Your task to perform on an android device: open device folders in google photos Image 0: 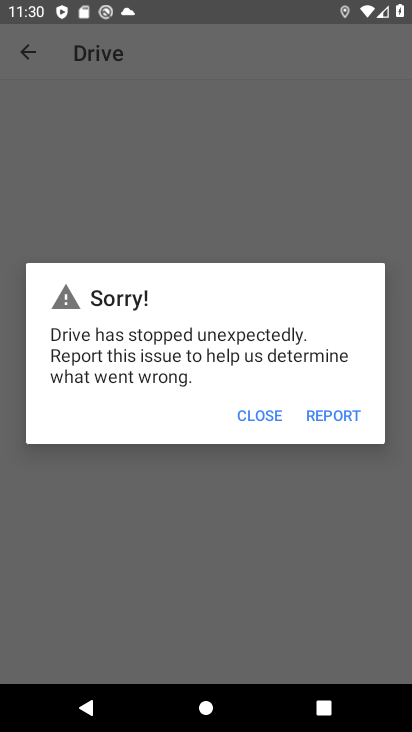
Step 0: press home button
Your task to perform on an android device: open device folders in google photos Image 1: 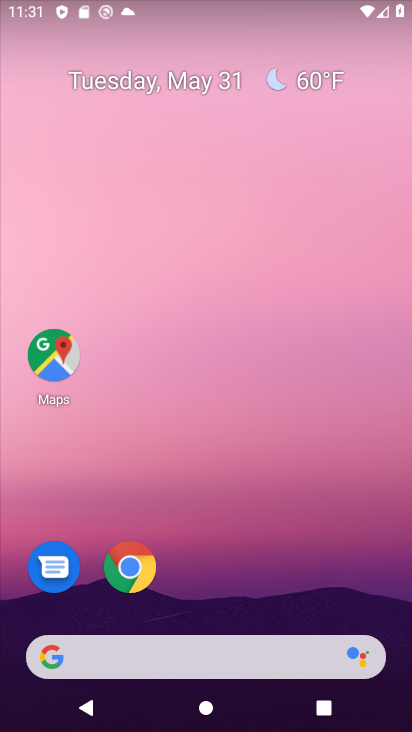
Step 1: drag from (181, 637) to (172, 113)
Your task to perform on an android device: open device folders in google photos Image 2: 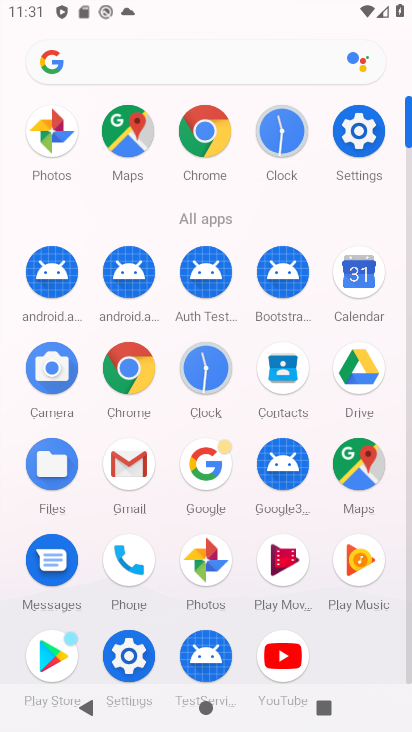
Step 2: click (213, 557)
Your task to perform on an android device: open device folders in google photos Image 3: 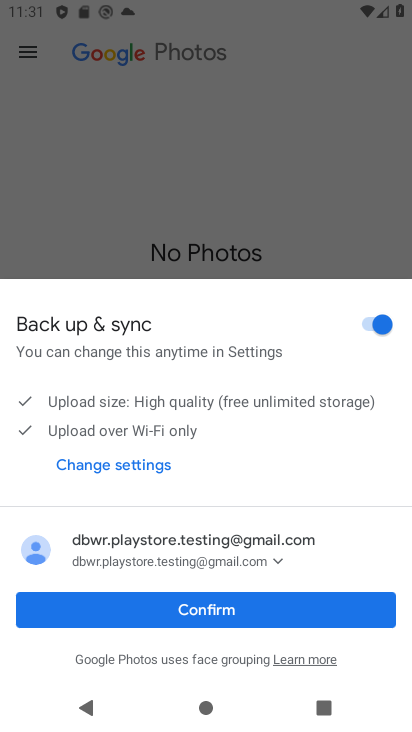
Step 3: click (175, 603)
Your task to perform on an android device: open device folders in google photos Image 4: 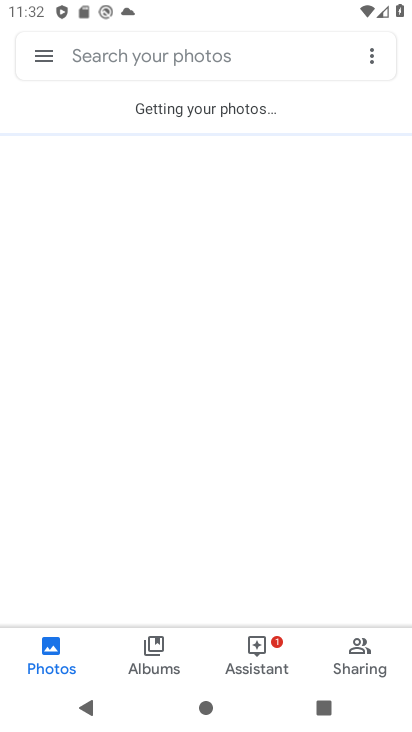
Step 4: click (168, 667)
Your task to perform on an android device: open device folders in google photos Image 5: 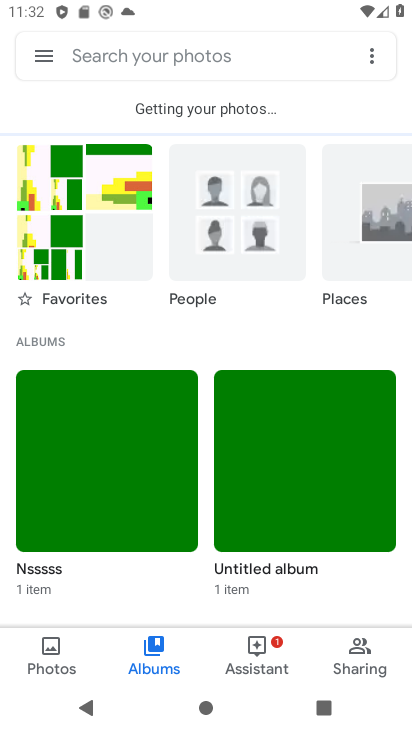
Step 5: task complete